Your task to perform on an android device: snooze an email in the gmail app Image 0: 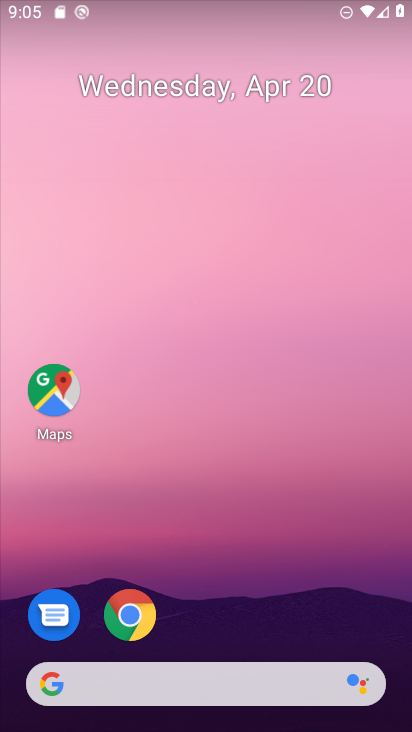
Step 0: drag from (228, 591) to (284, 50)
Your task to perform on an android device: snooze an email in the gmail app Image 1: 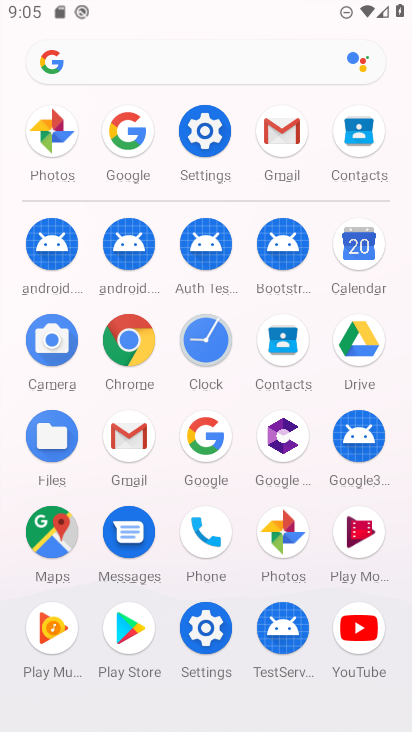
Step 1: click (280, 132)
Your task to perform on an android device: snooze an email in the gmail app Image 2: 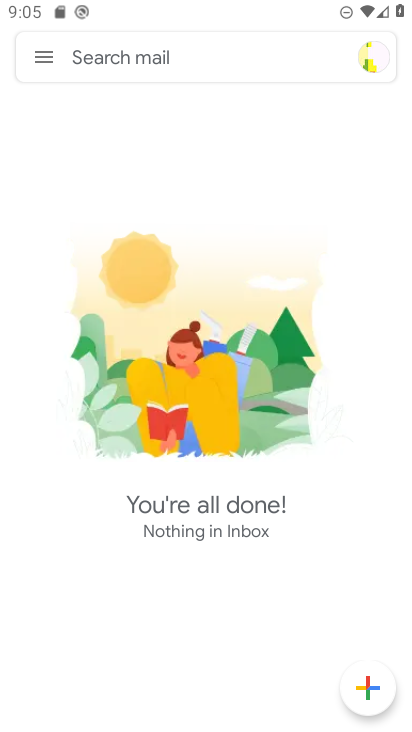
Step 2: click (45, 58)
Your task to perform on an android device: snooze an email in the gmail app Image 3: 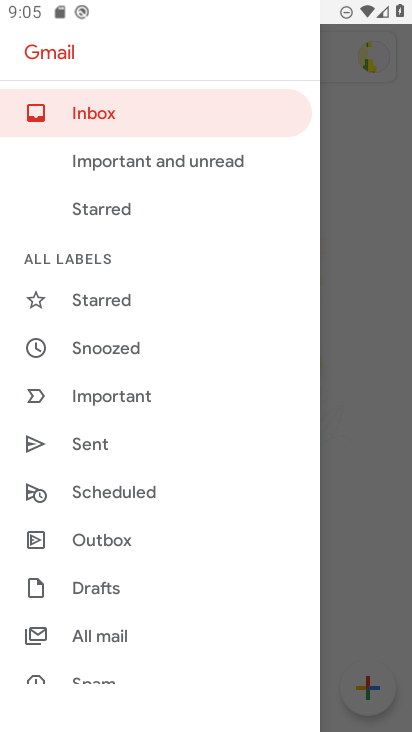
Step 3: click (108, 642)
Your task to perform on an android device: snooze an email in the gmail app Image 4: 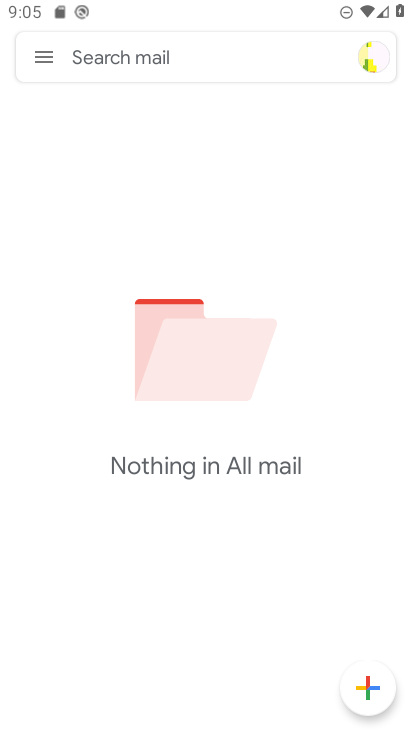
Step 4: click (40, 60)
Your task to perform on an android device: snooze an email in the gmail app Image 5: 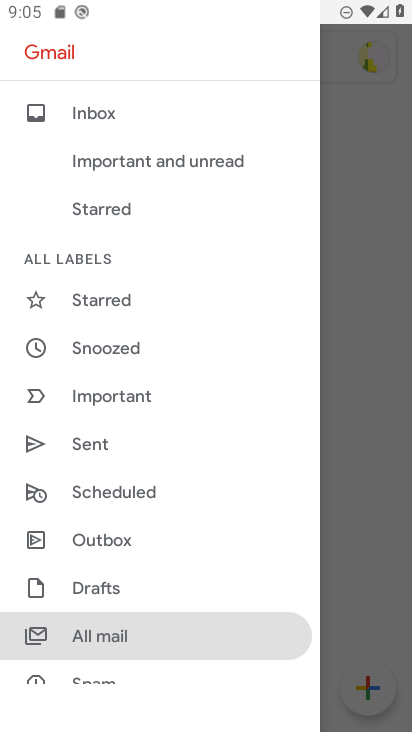
Step 5: click (116, 344)
Your task to perform on an android device: snooze an email in the gmail app Image 6: 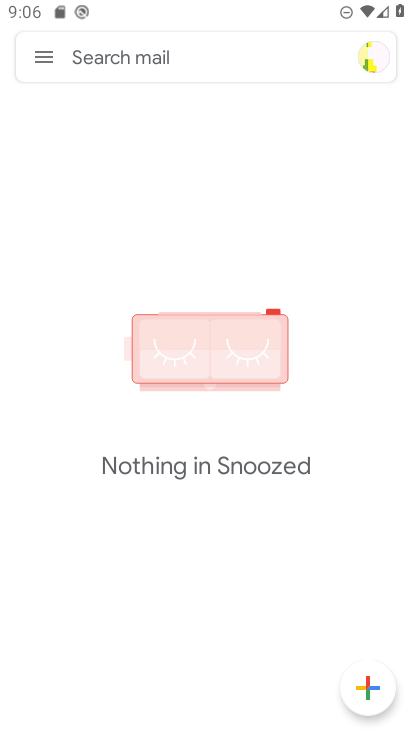
Step 6: click (52, 62)
Your task to perform on an android device: snooze an email in the gmail app Image 7: 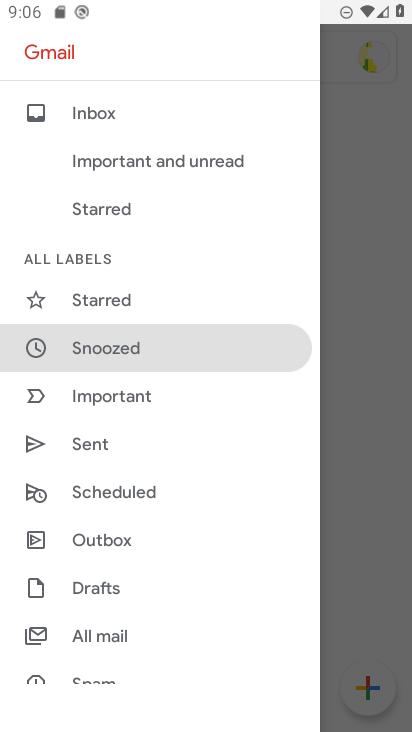
Step 7: click (121, 396)
Your task to perform on an android device: snooze an email in the gmail app Image 8: 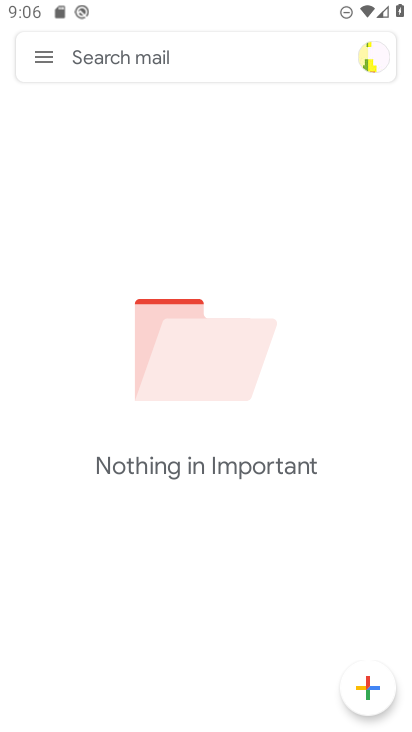
Step 8: click (32, 59)
Your task to perform on an android device: snooze an email in the gmail app Image 9: 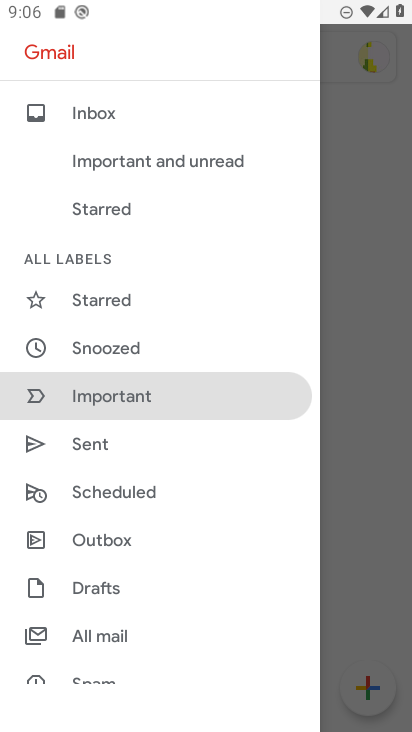
Step 9: click (117, 631)
Your task to perform on an android device: snooze an email in the gmail app Image 10: 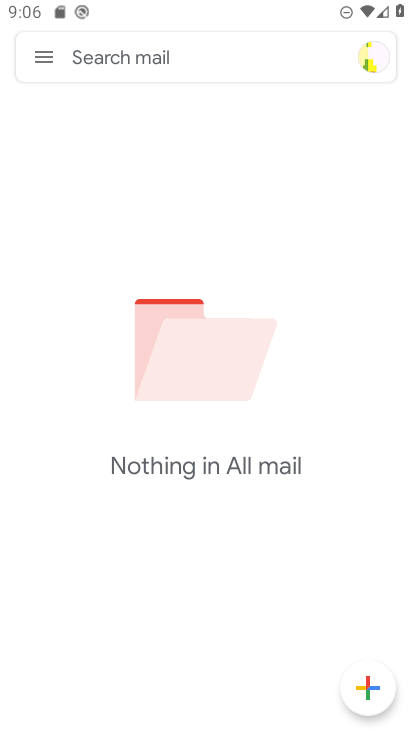
Step 10: click (49, 56)
Your task to perform on an android device: snooze an email in the gmail app Image 11: 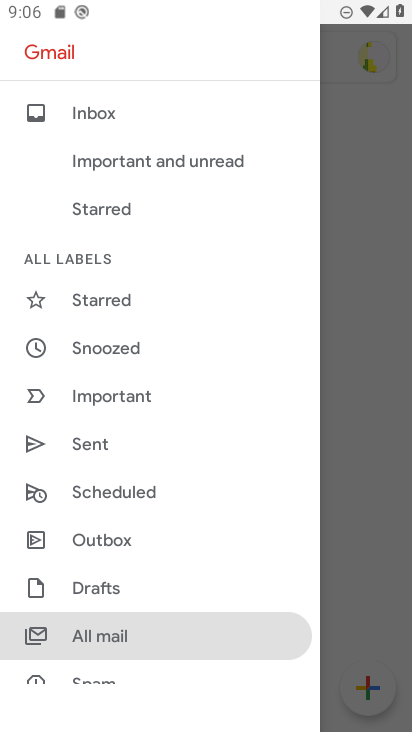
Step 11: click (100, 597)
Your task to perform on an android device: snooze an email in the gmail app Image 12: 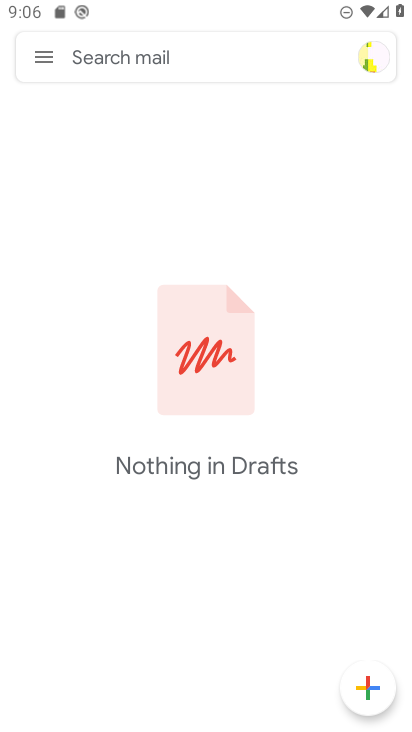
Step 12: click (39, 65)
Your task to perform on an android device: snooze an email in the gmail app Image 13: 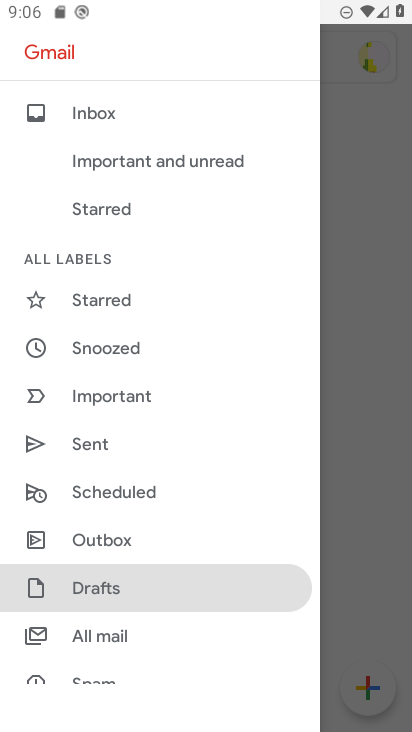
Step 13: task complete